Your task to perform on an android device: See recent photos Image 0: 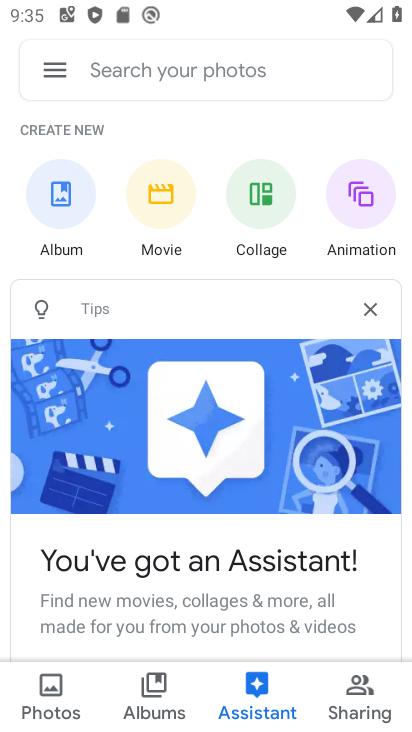
Step 0: press home button
Your task to perform on an android device: See recent photos Image 1: 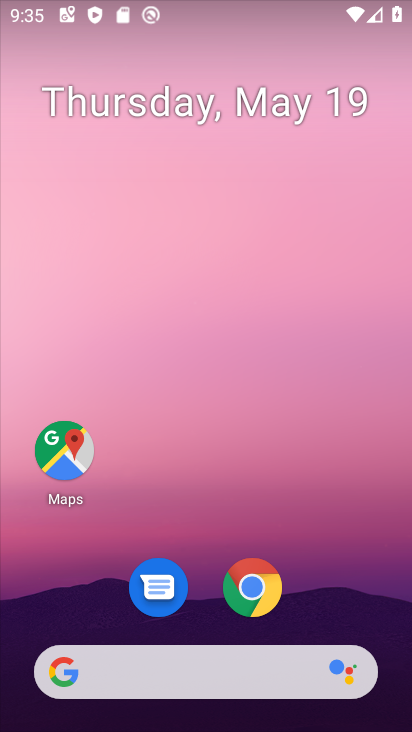
Step 1: drag from (234, 677) to (215, 23)
Your task to perform on an android device: See recent photos Image 2: 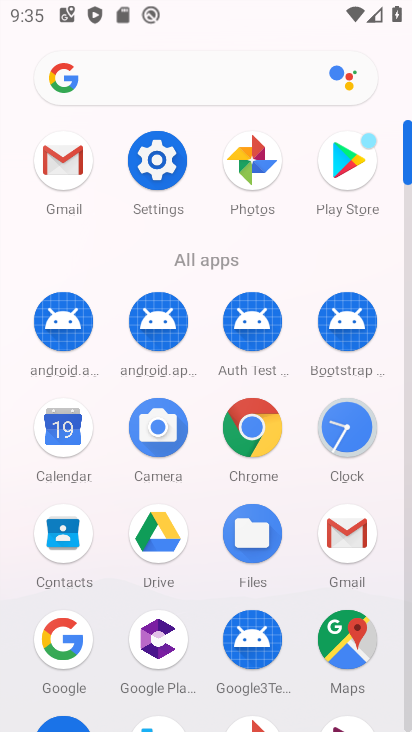
Step 2: click (246, 162)
Your task to perform on an android device: See recent photos Image 3: 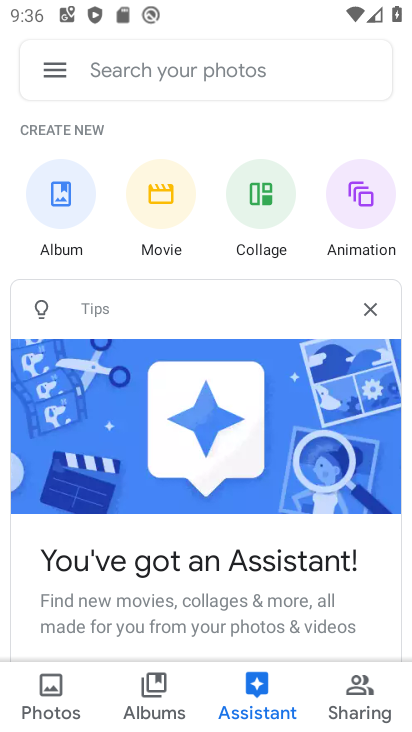
Step 3: click (47, 702)
Your task to perform on an android device: See recent photos Image 4: 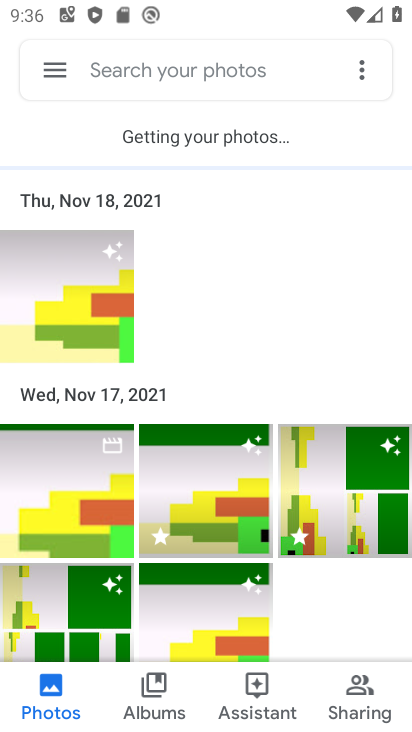
Step 4: task complete